Your task to perform on an android device: Empty the shopping cart on bestbuy.com. Search for usb-a to usb-b on bestbuy.com, select the first entry, add it to the cart, then select checkout. Image 0: 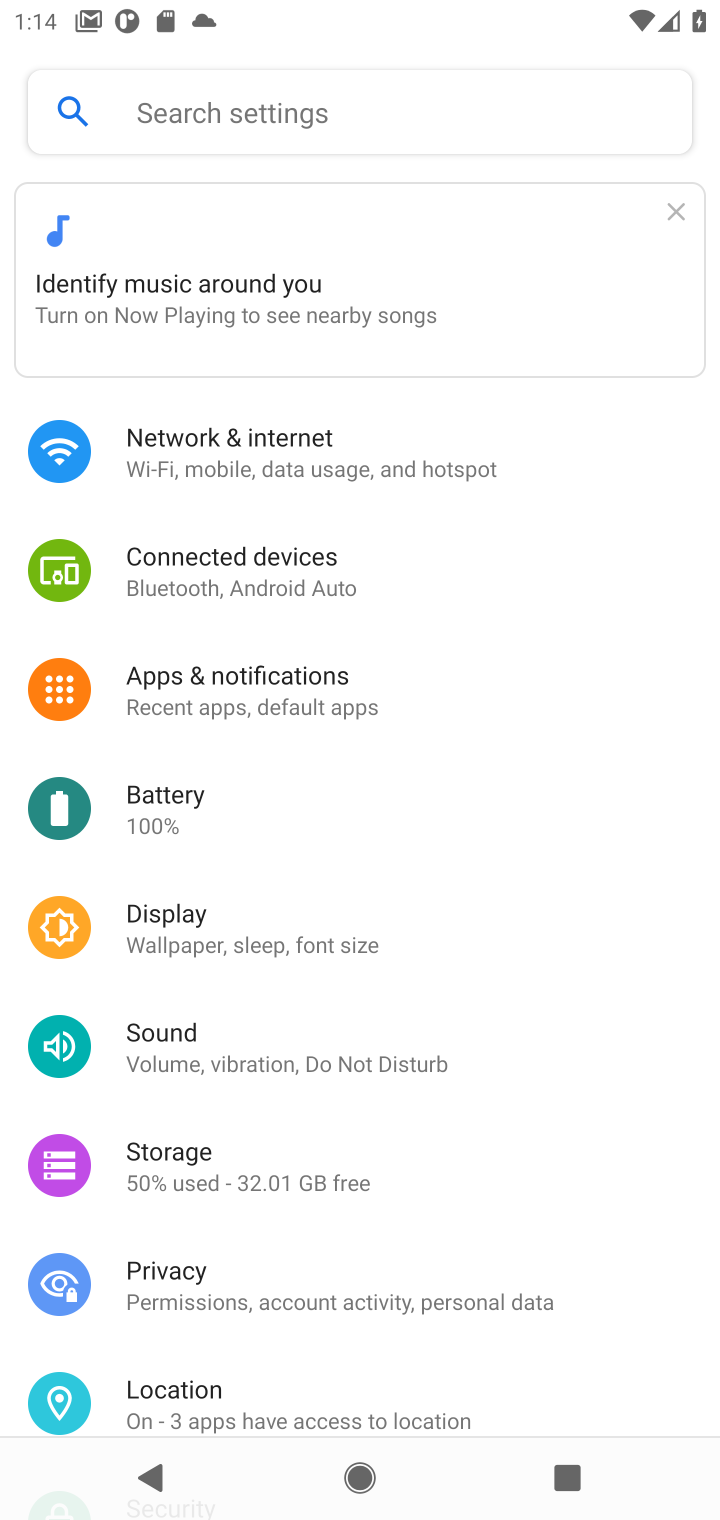
Step 0: press home button
Your task to perform on an android device: Empty the shopping cart on bestbuy.com. Search for usb-a to usb-b on bestbuy.com, select the first entry, add it to the cart, then select checkout. Image 1: 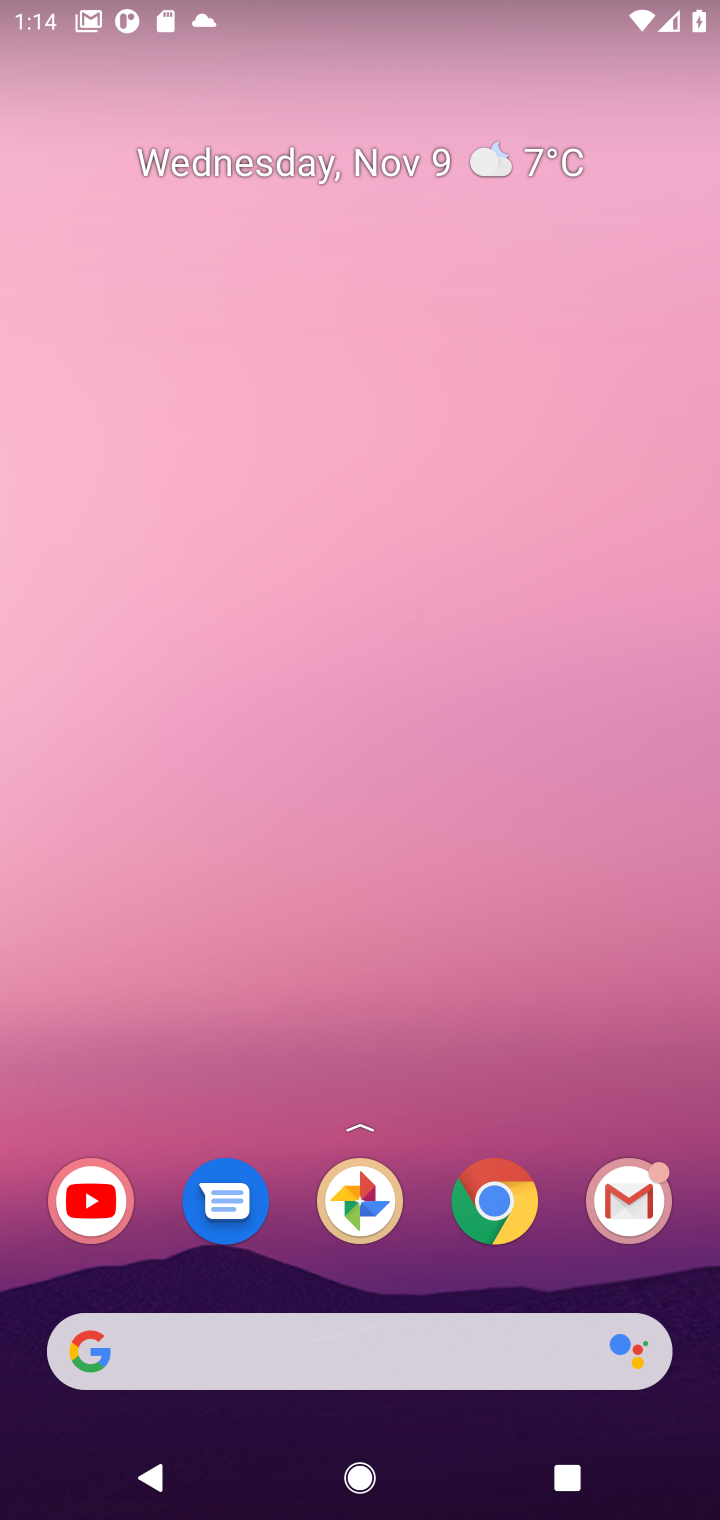
Step 1: click (375, 1348)
Your task to perform on an android device: Empty the shopping cart on bestbuy.com. Search for usb-a to usb-b on bestbuy.com, select the first entry, add it to the cart, then select checkout. Image 2: 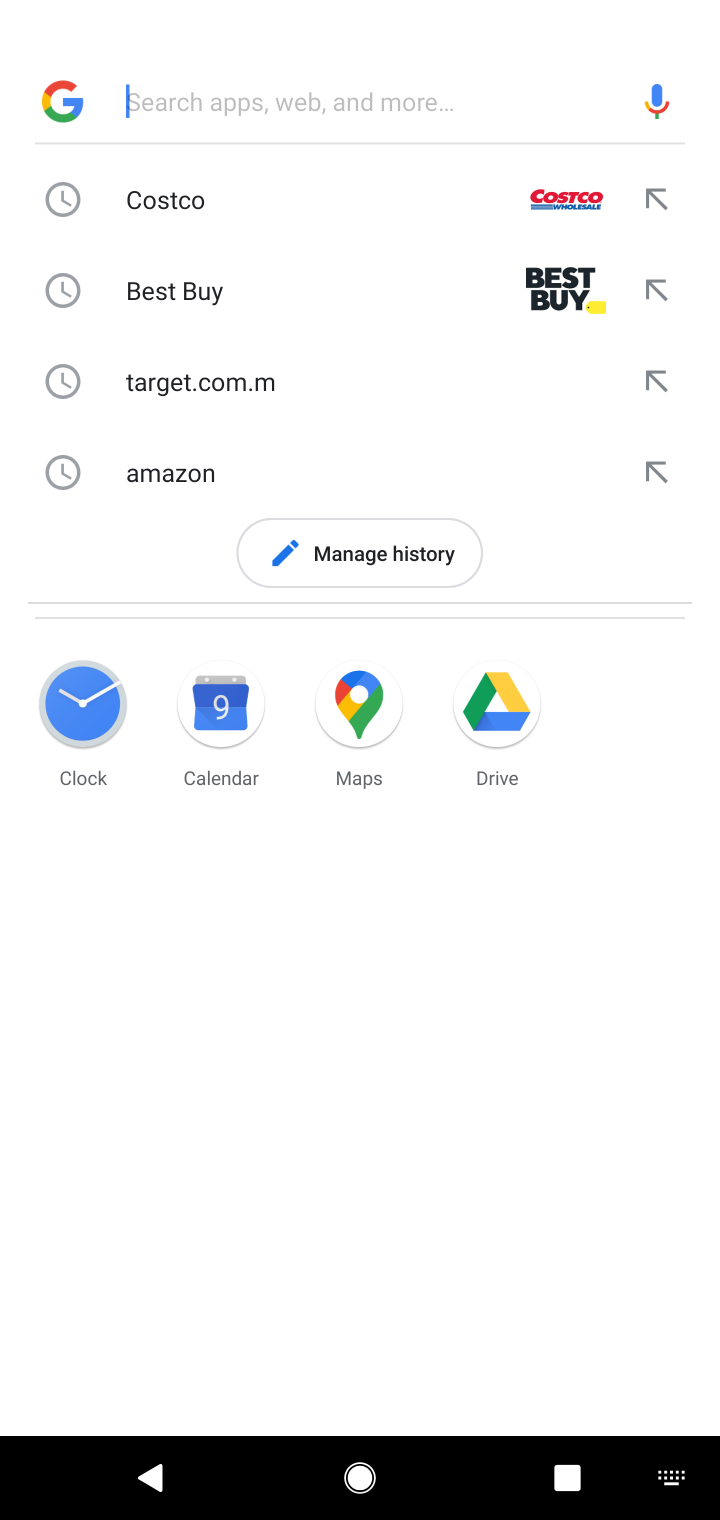
Step 2: click (350, 318)
Your task to perform on an android device: Empty the shopping cart on bestbuy.com. Search for usb-a to usb-b on bestbuy.com, select the first entry, add it to the cart, then select checkout. Image 3: 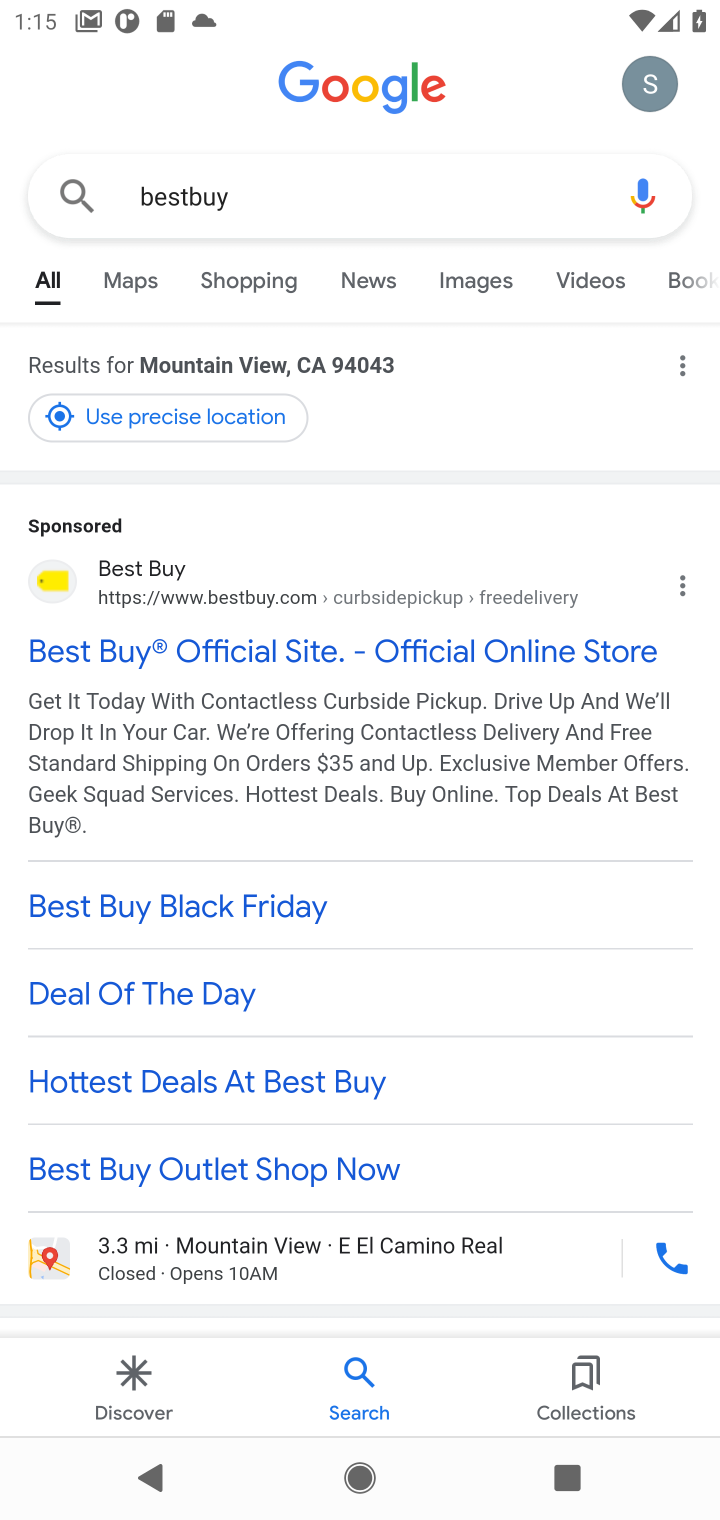
Step 3: click (129, 571)
Your task to perform on an android device: Empty the shopping cart on bestbuy.com. Search for usb-a to usb-b on bestbuy.com, select the first entry, add it to the cart, then select checkout. Image 4: 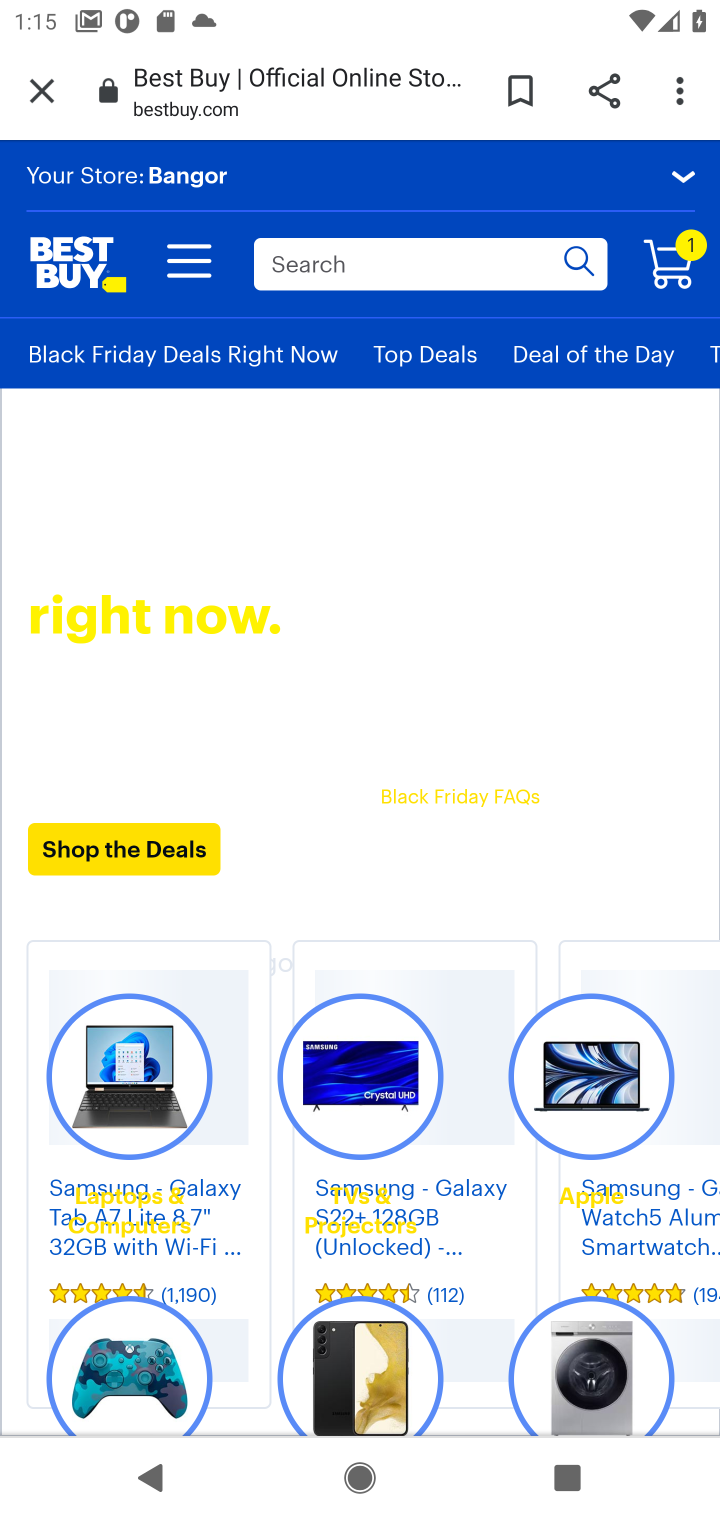
Step 4: click (417, 258)
Your task to perform on an android device: Empty the shopping cart on bestbuy.com. Search for usb-a to usb-b on bestbuy.com, select the first entry, add it to the cart, then select checkout. Image 5: 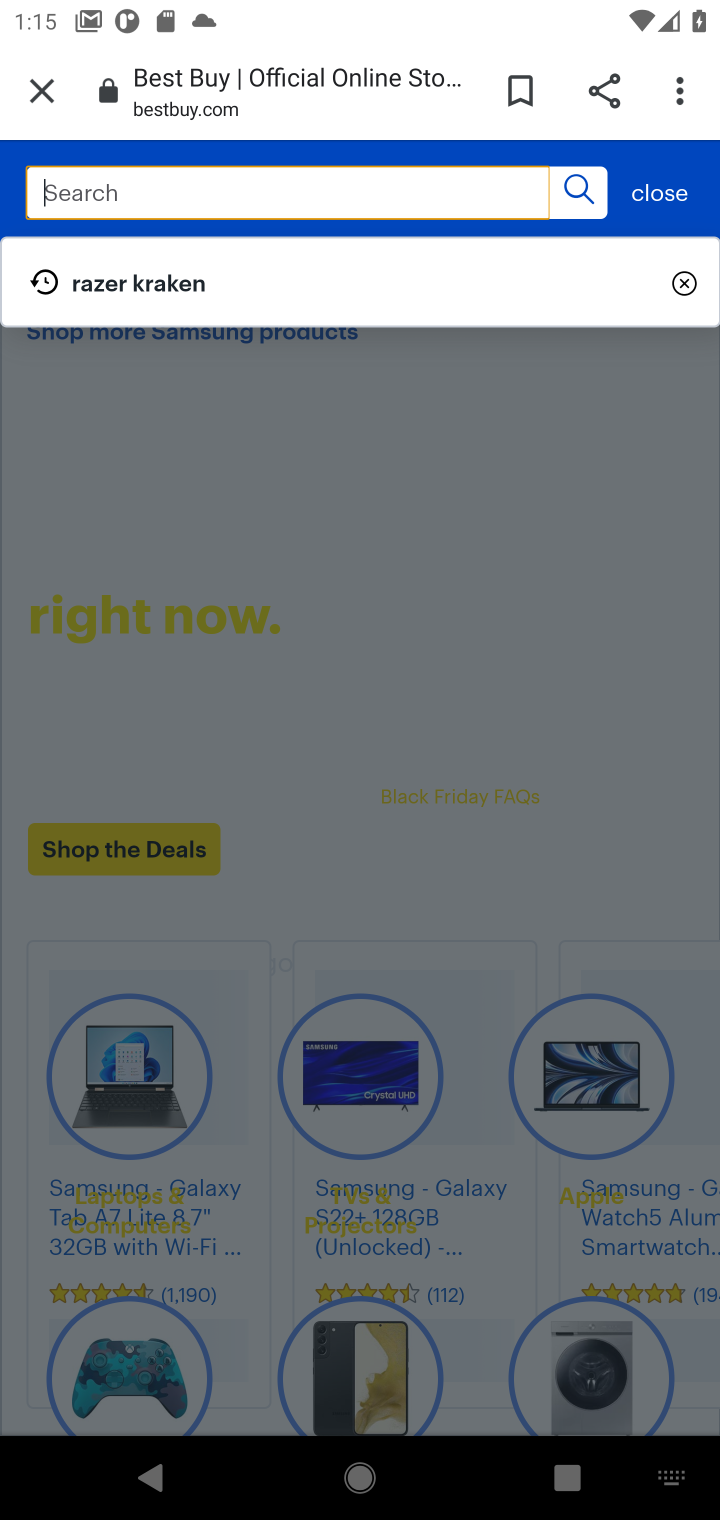
Step 5: type "usb-a to usb-b"
Your task to perform on an android device: Empty the shopping cart on bestbuy.com. Search for usb-a to usb-b on bestbuy.com, select the first entry, add it to the cart, then select checkout. Image 6: 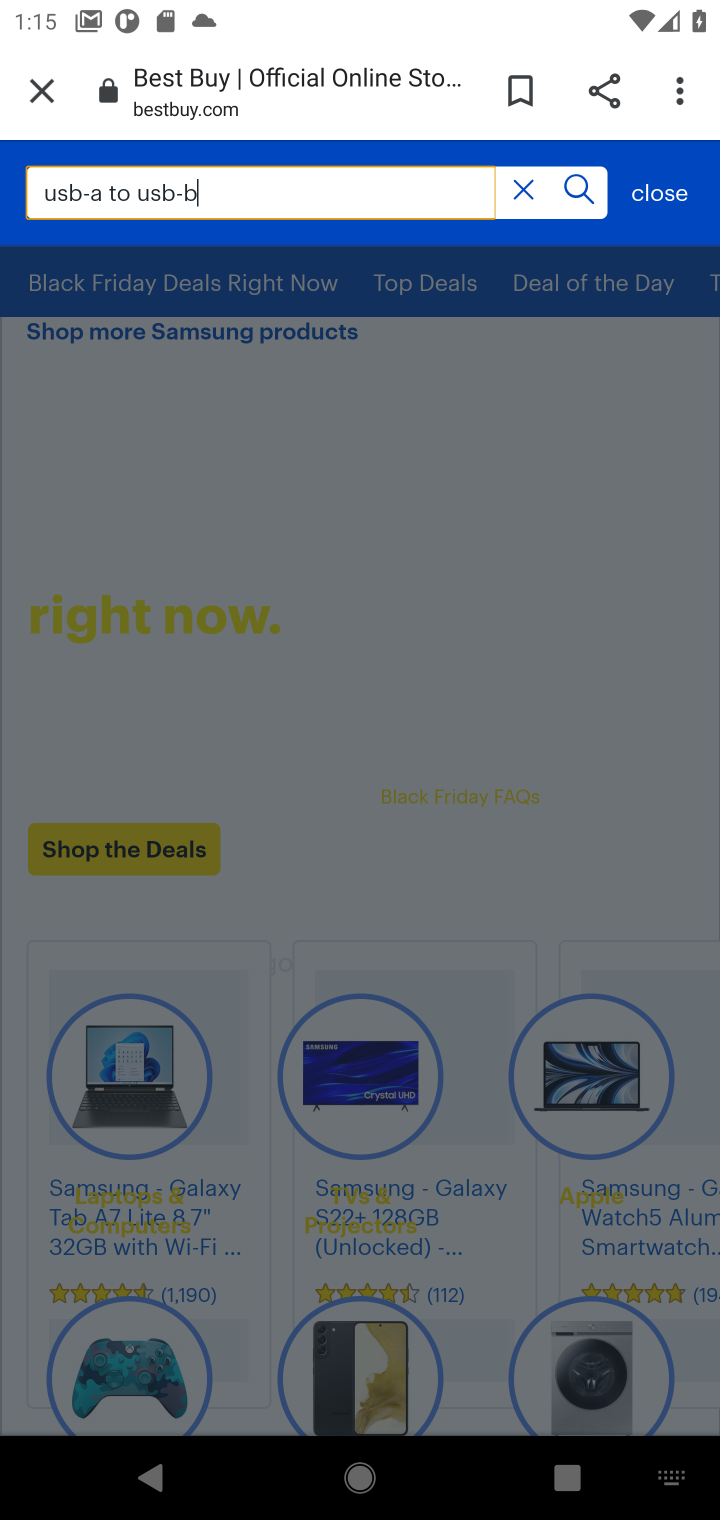
Step 6: click (582, 191)
Your task to perform on an android device: Empty the shopping cart on bestbuy.com. Search for usb-a to usb-b on bestbuy.com, select the first entry, add it to the cart, then select checkout. Image 7: 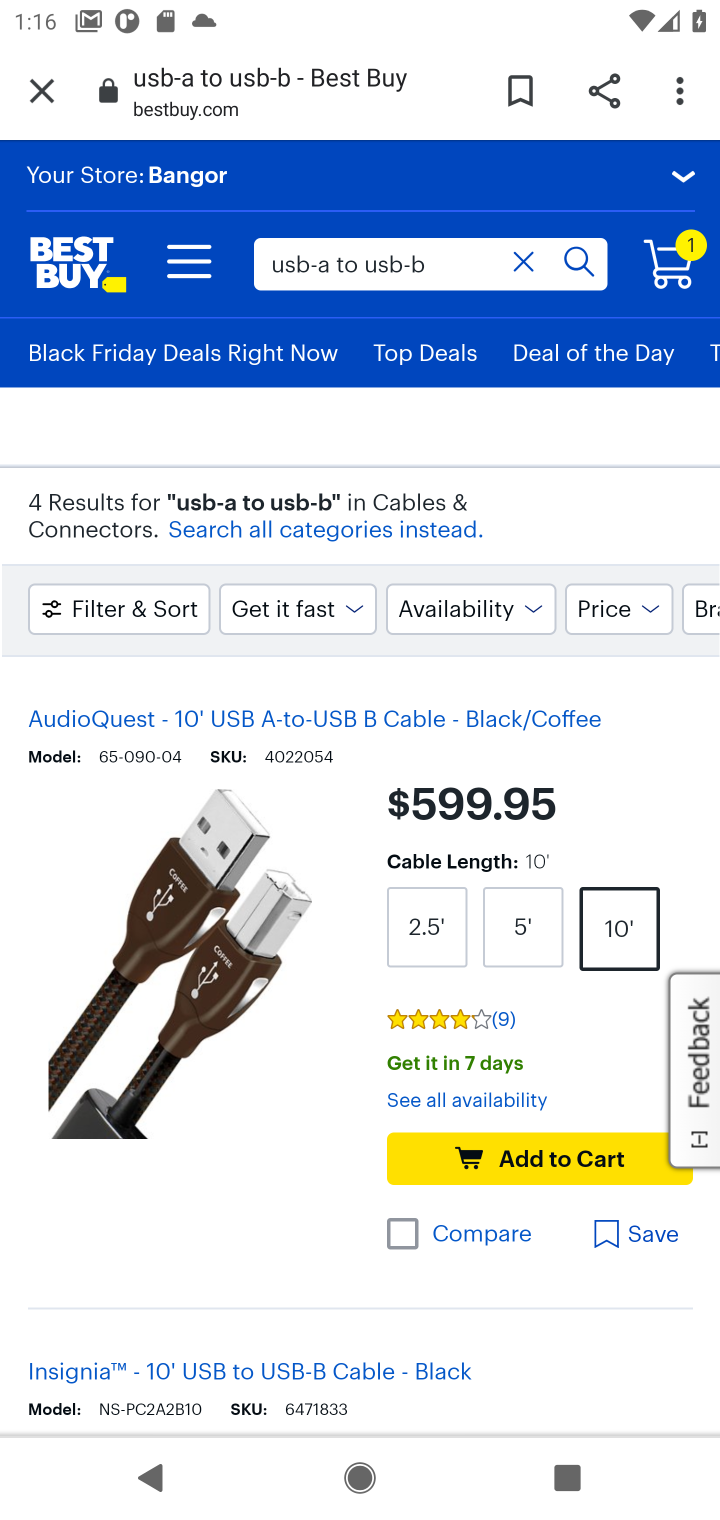
Step 7: click (568, 1158)
Your task to perform on an android device: Empty the shopping cart on bestbuy.com. Search for usb-a to usb-b on bestbuy.com, select the first entry, add it to the cart, then select checkout. Image 8: 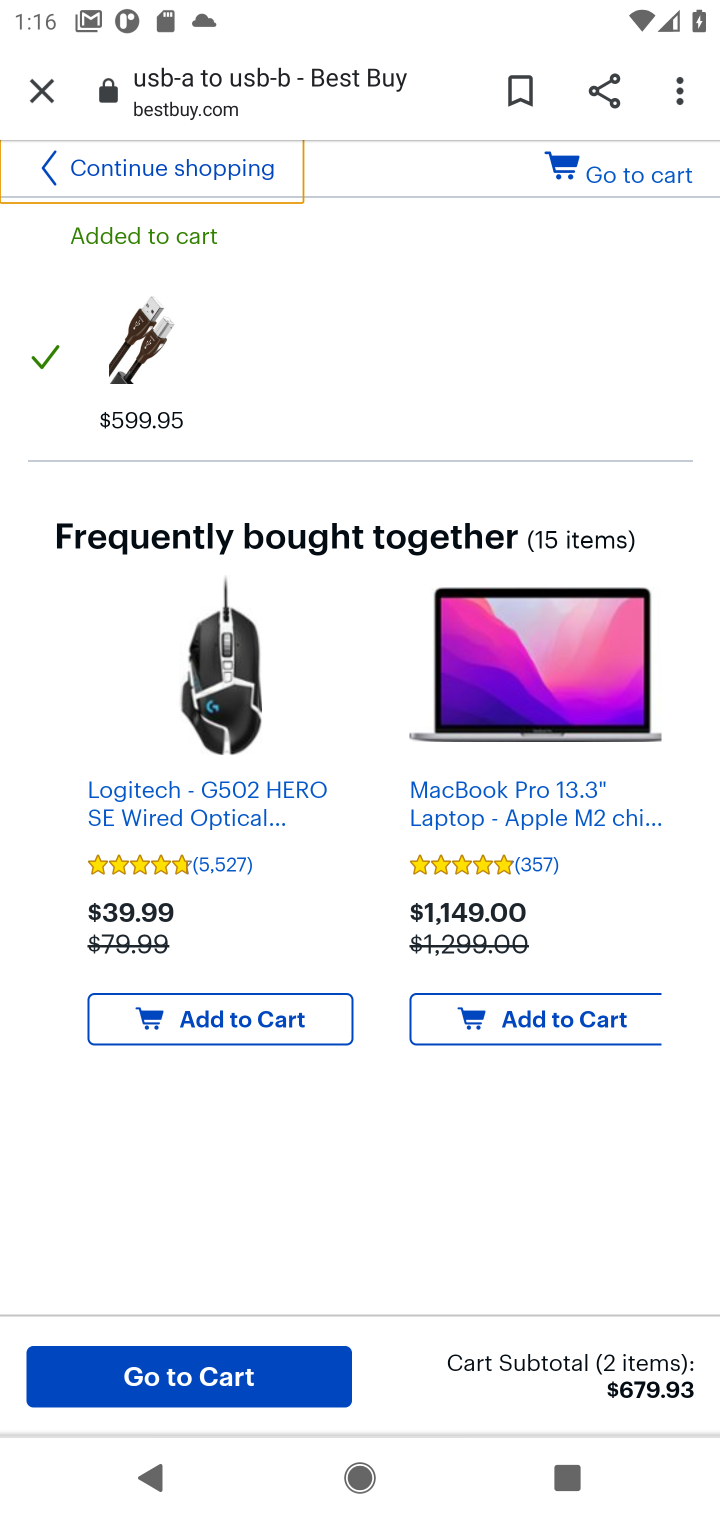
Step 8: click (161, 1372)
Your task to perform on an android device: Empty the shopping cart on bestbuy.com. Search for usb-a to usb-b on bestbuy.com, select the first entry, add it to the cart, then select checkout. Image 9: 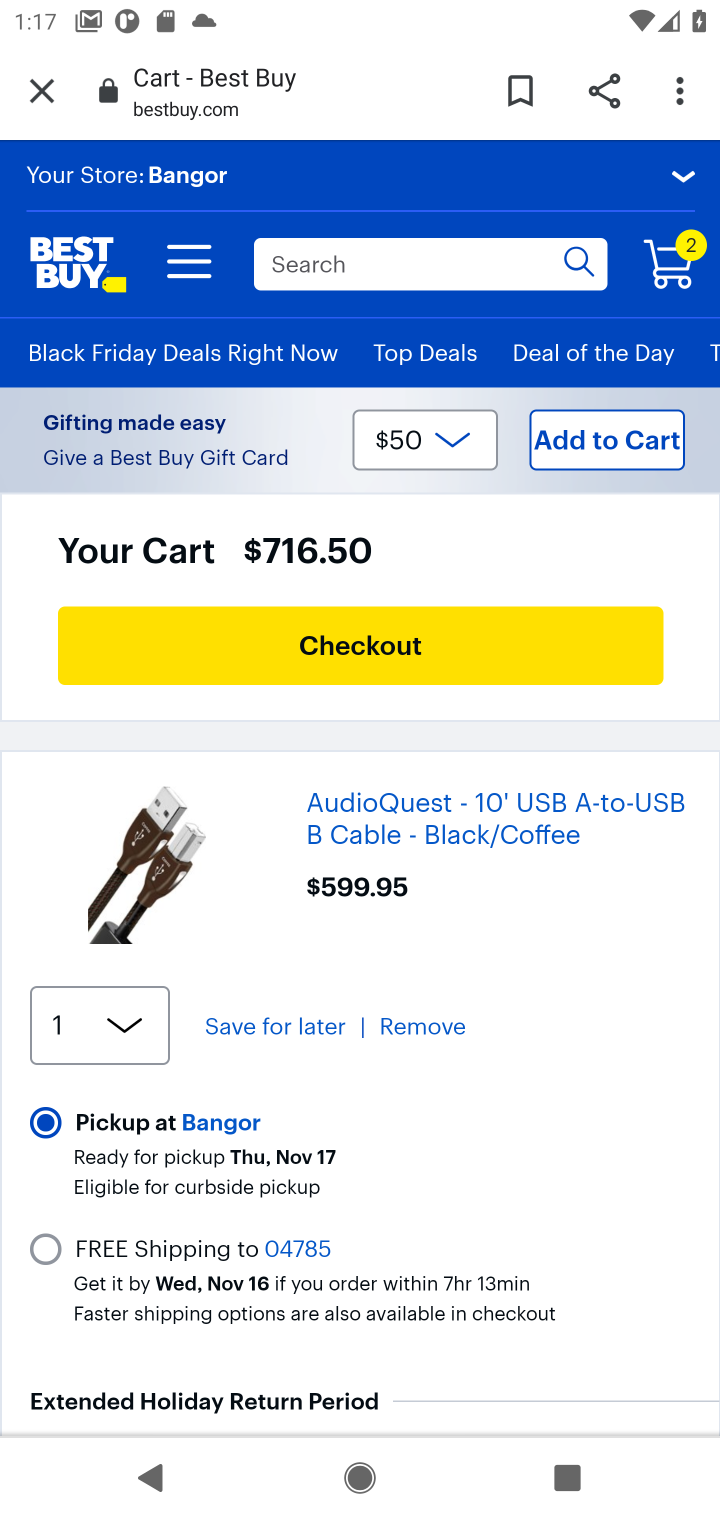
Step 9: click (358, 638)
Your task to perform on an android device: Empty the shopping cart on bestbuy.com. Search for usb-a to usb-b on bestbuy.com, select the first entry, add it to the cart, then select checkout. Image 10: 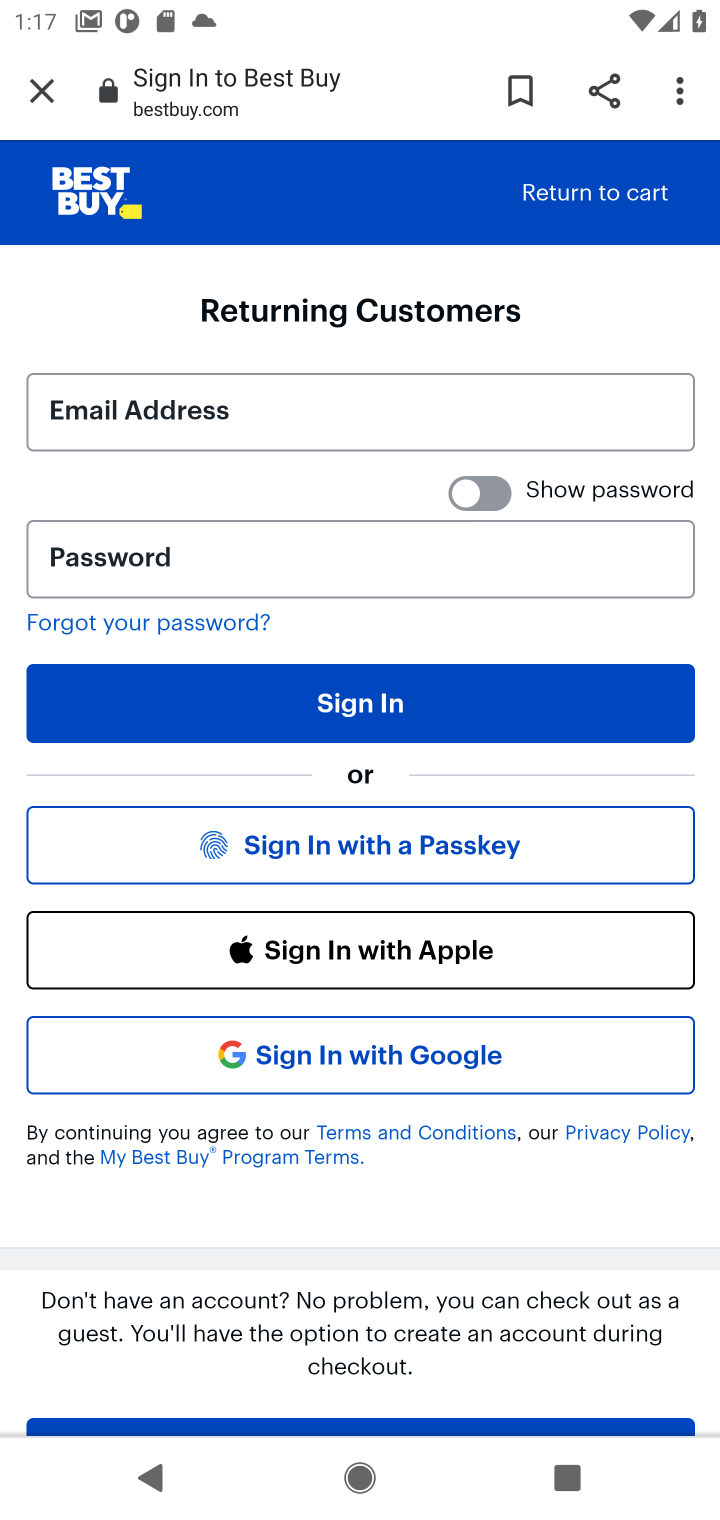
Step 10: task complete